Your task to perform on an android device: Open maps Image 0: 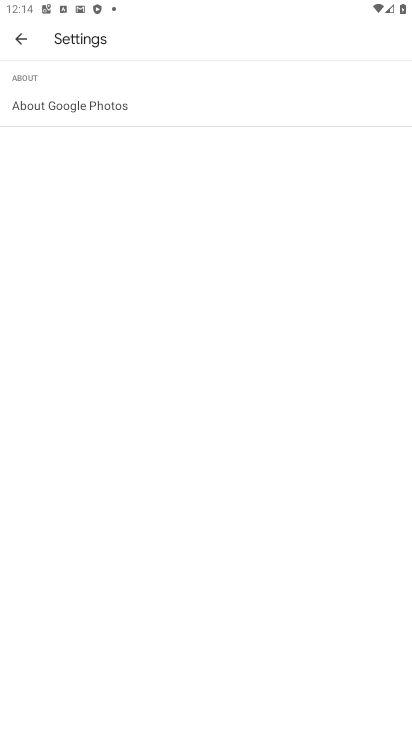
Step 0: press home button
Your task to perform on an android device: Open maps Image 1: 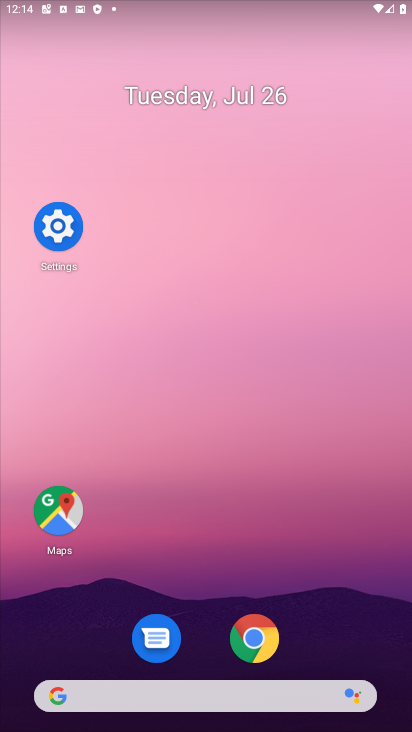
Step 1: click (50, 512)
Your task to perform on an android device: Open maps Image 2: 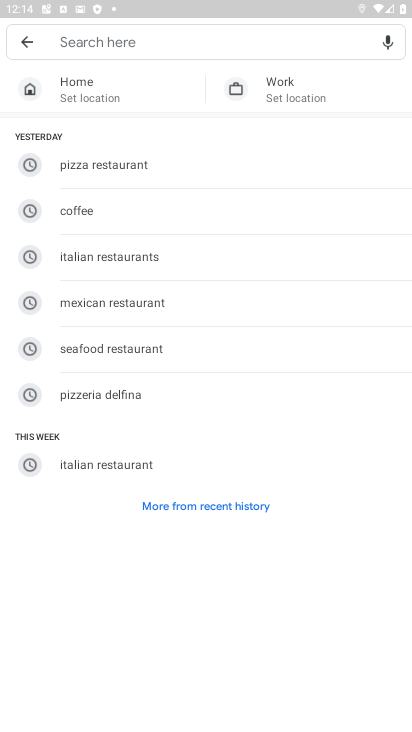
Step 2: task complete